Your task to perform on an android device: set an alarm Image 0: 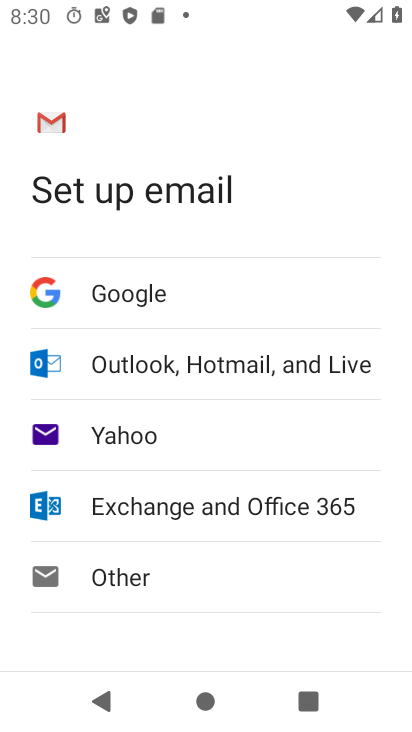
Step 0: press home button
Your task to perform on an android device: set an alarm Image 1: 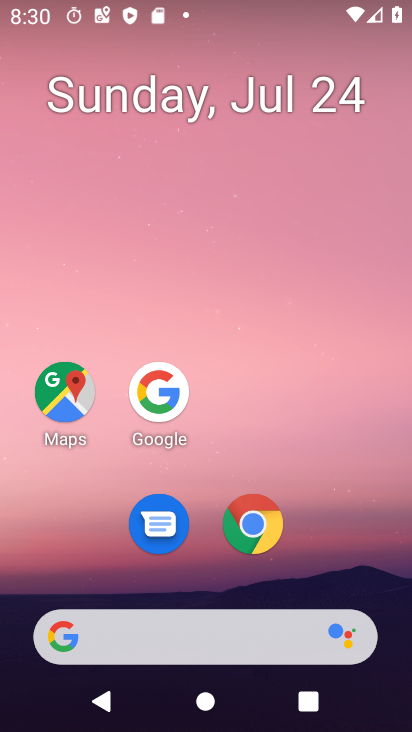
Step 1: drag from (198, 635) to (337, 6)
Your task to perform on an android device: set an alarm Image 2: 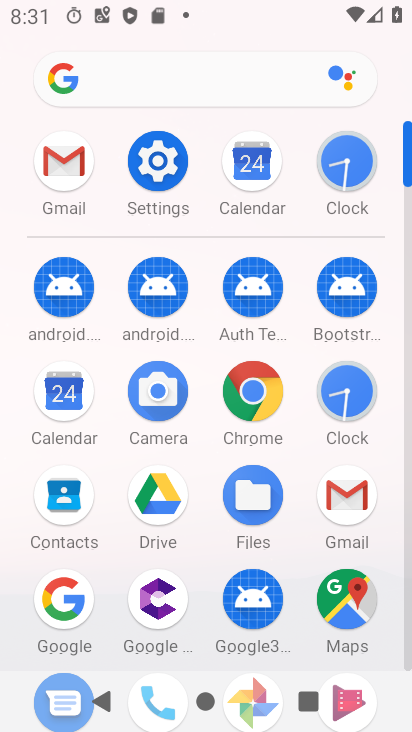
Step 2: click (348, 172)
Your task to perform on an android device: set an alarm Image 3: 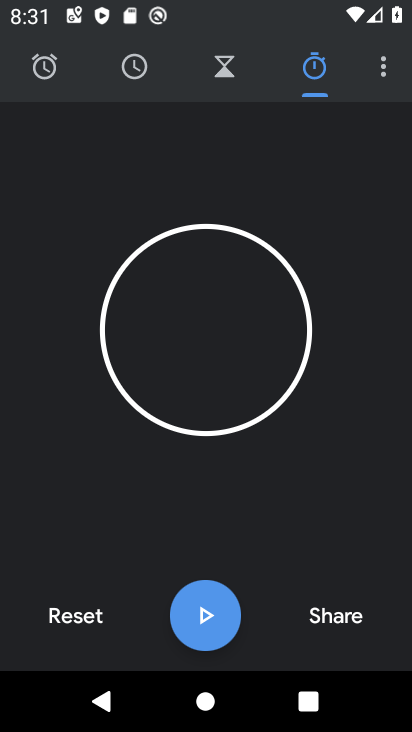
Step 3: click (44, 68)
Your task to perform on an android device: set an alarm Image 4: 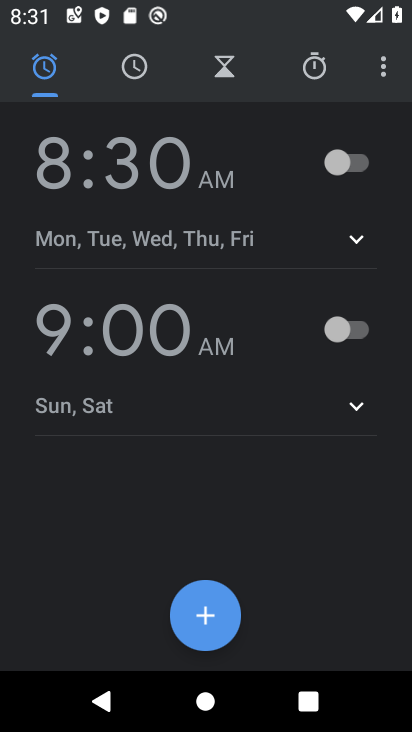
Step 4: click (364, 161)
Your task to perform on an android device: set an alarm Image 5: 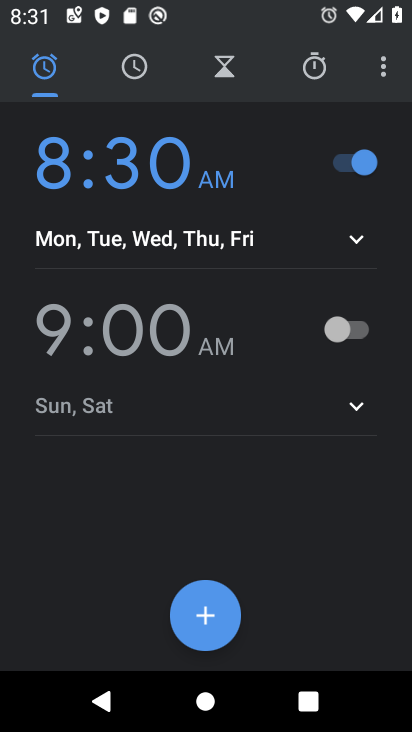
Step 5: task complete